Your task to perform on an android device: open app "Pandora - Music & Podcasts" Image 0: 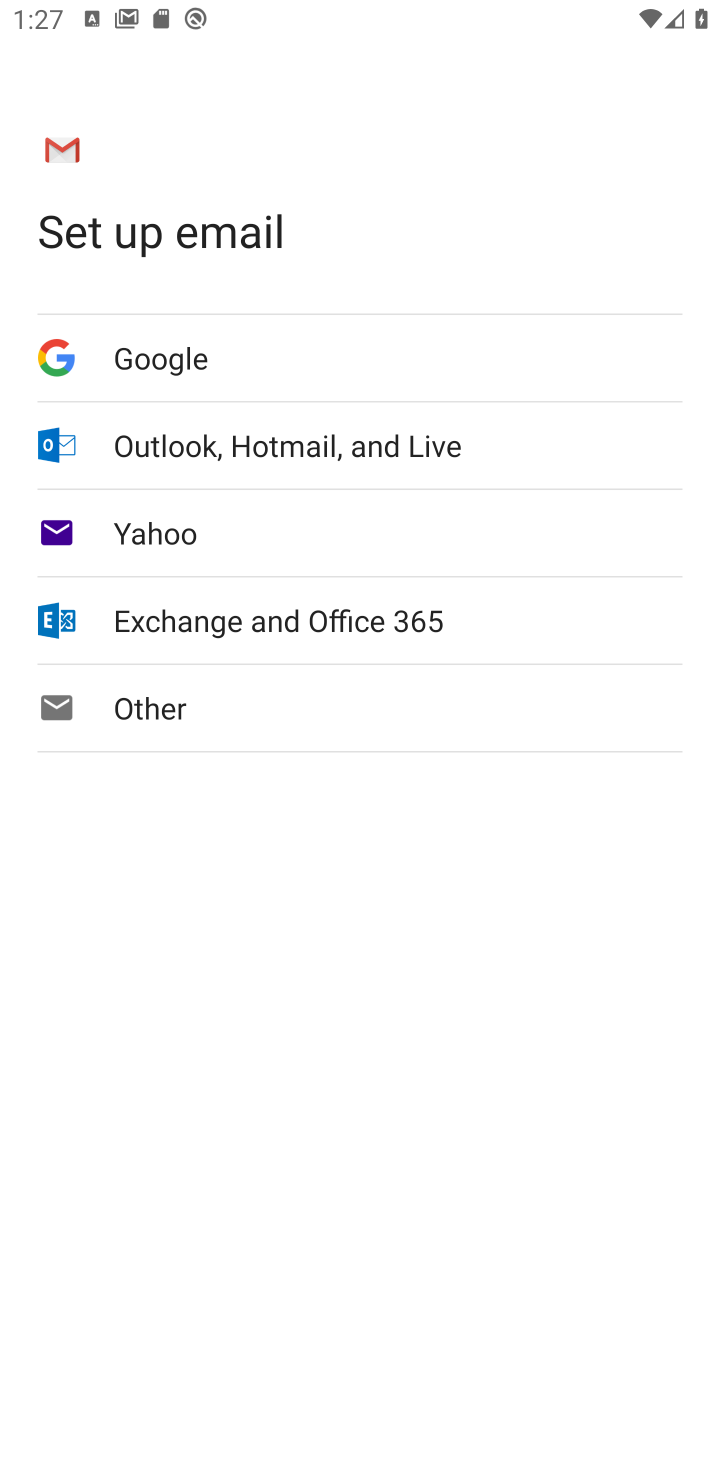
Step 0: press home button
Your task to perform on an android device: open app "Pandora - Music & Podcasts" Image 1: 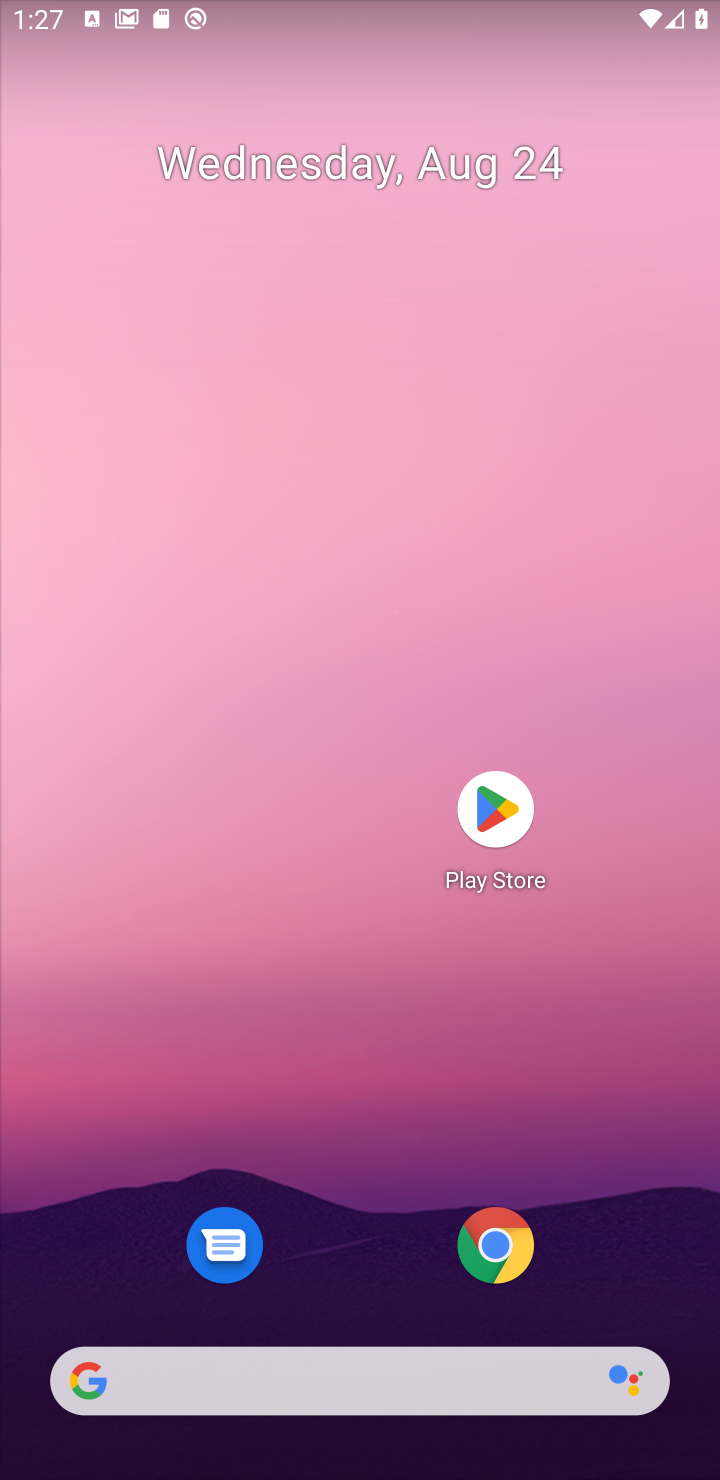
Step 1: click (491, 814)
Your task to perform on an android device: open app "Pandora - Music & Podcasts" Image 2: 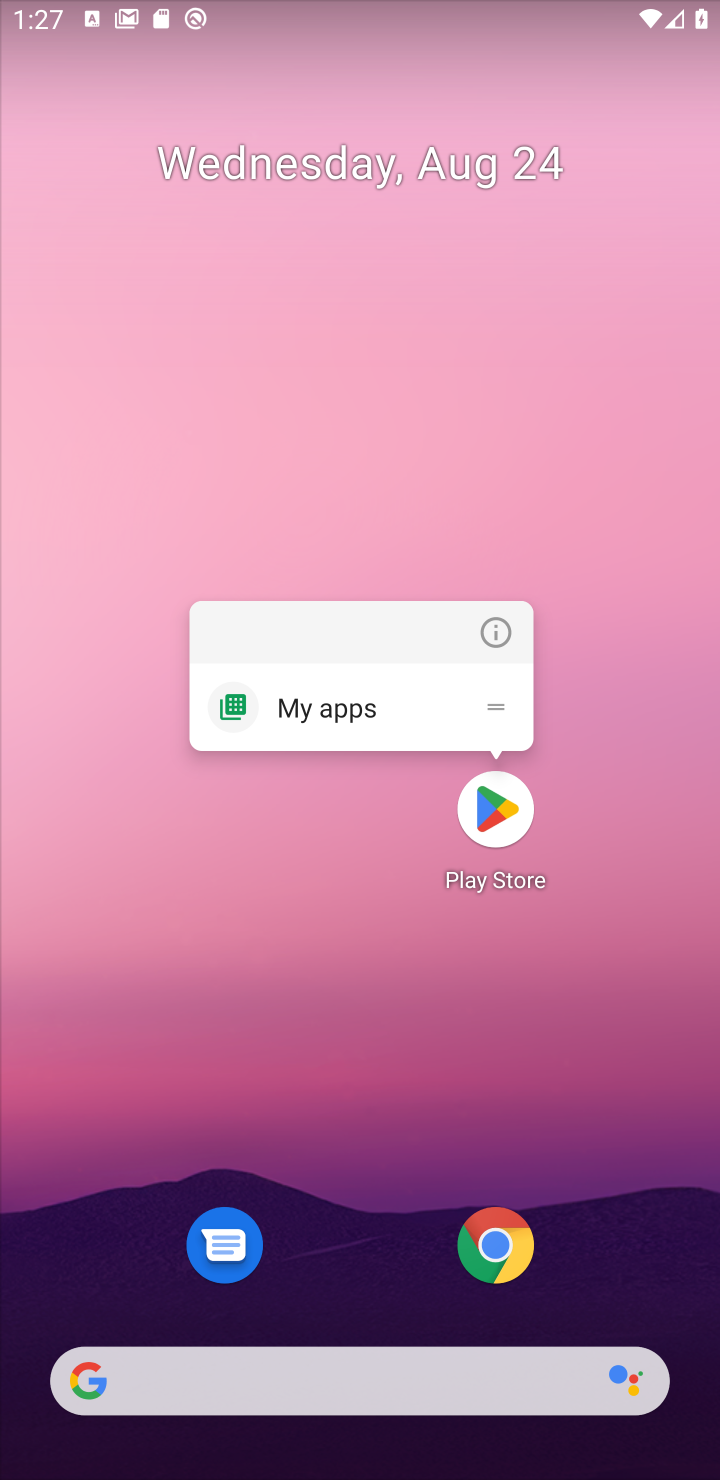
Step 2: click (491, 819)
Your task to perform on an android device: open app "Pandora - Music & Podcasts" Image 3: 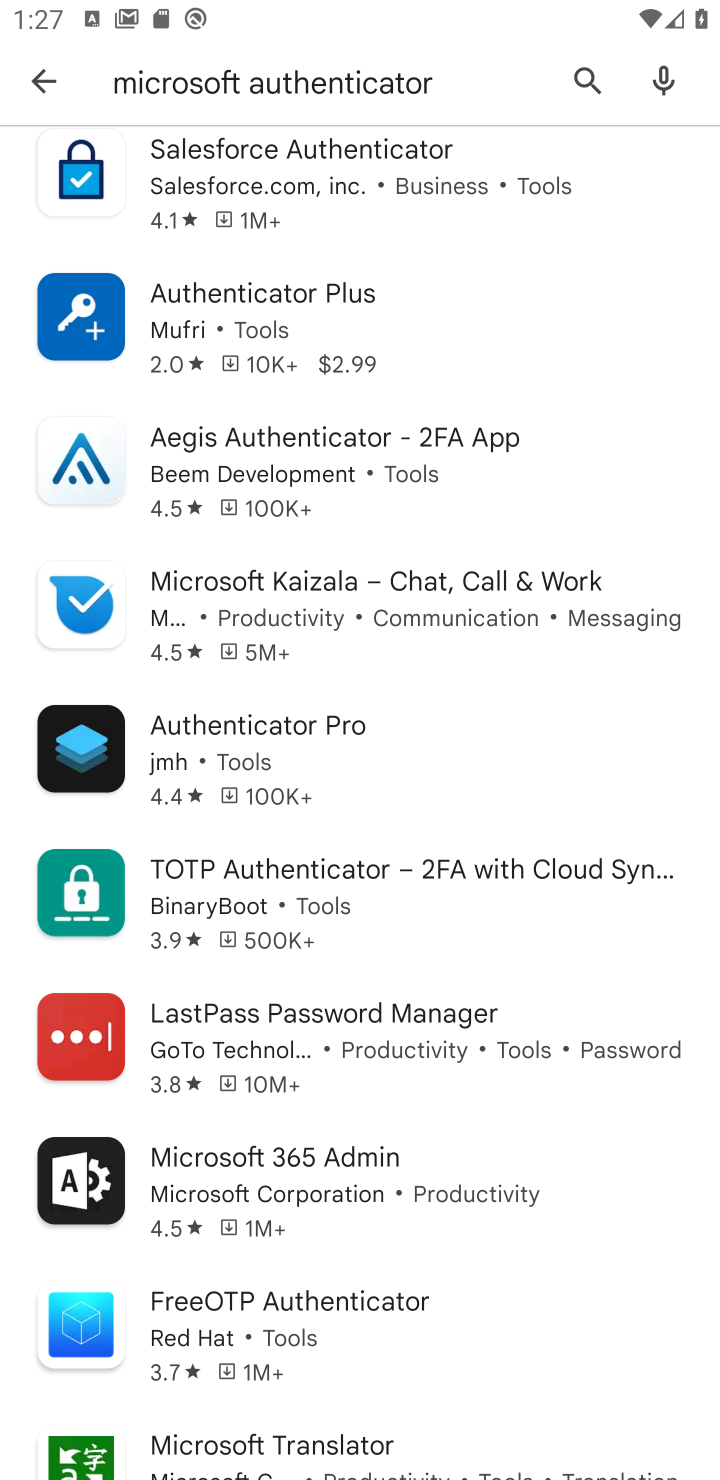
Step 3: click (590, 72)
Your task to perform on an android device: open app "Pandora - Music & Podcasts" Image 4: 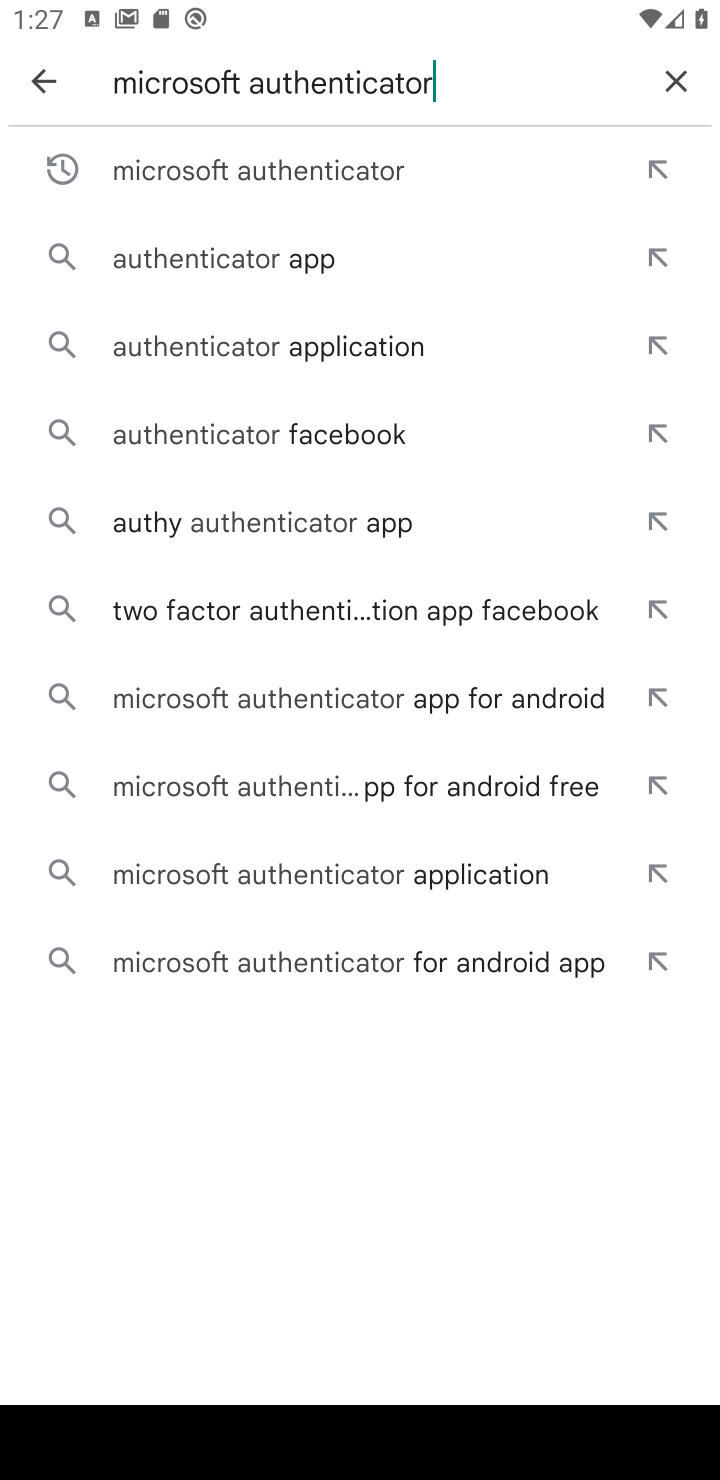
Step 4: click (671, 72)
Your task to perform on an android device: open app "Pandora - Music & Podcasts" Image 5: 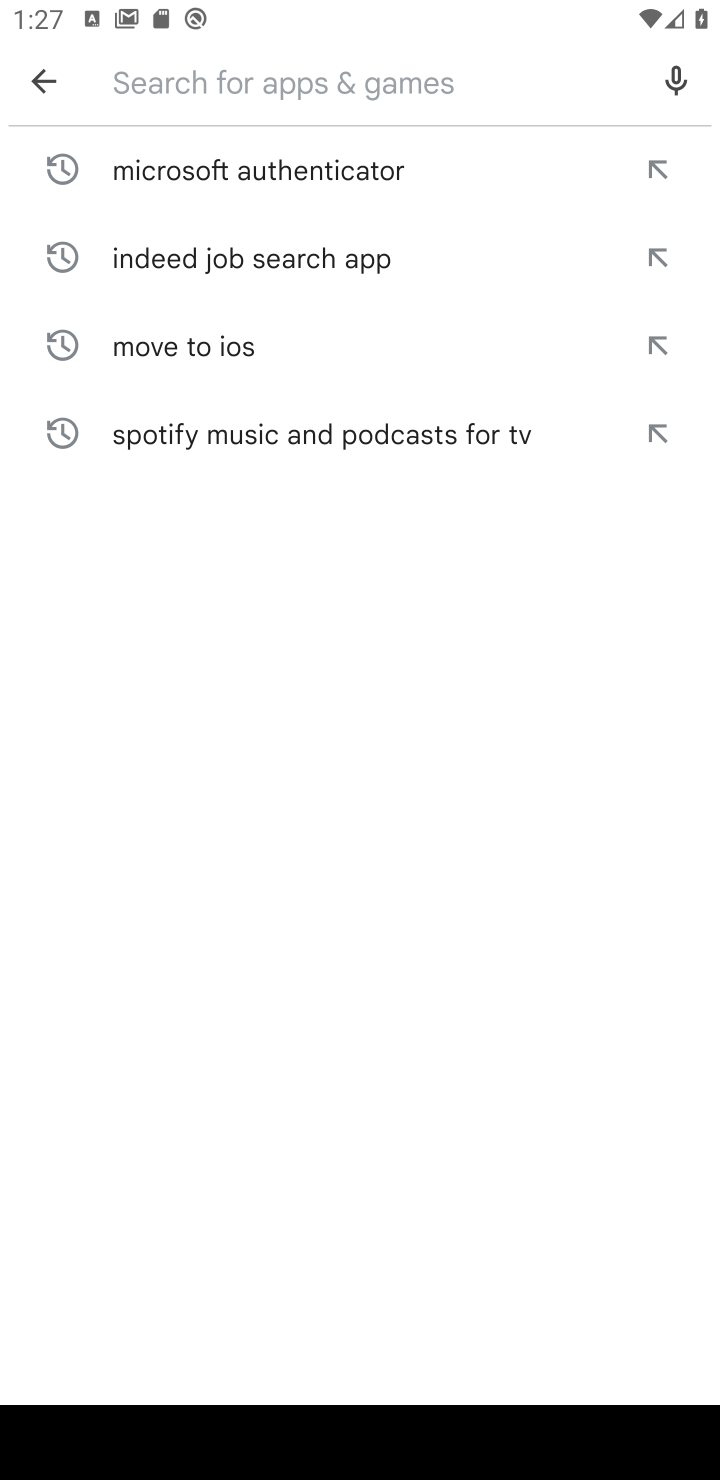
Step 5: type "Pandora - Music & Podcasts"
Your task to perform on an android device: open app "Pandora - Music & Podcasts" Image 6: 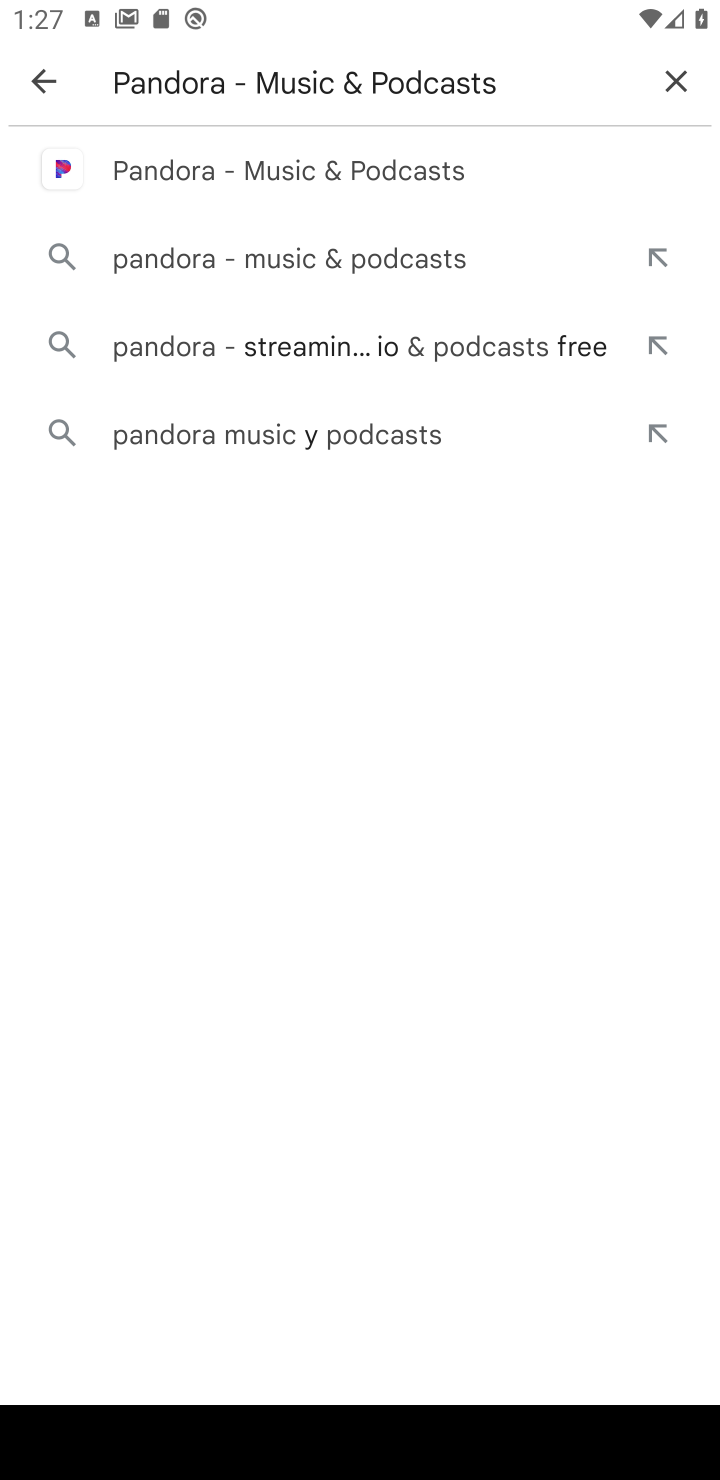
Step 6: click (307, 184)
Your task to perform on an android device: open app "Pandora - Music & Podcasts" Image 7: 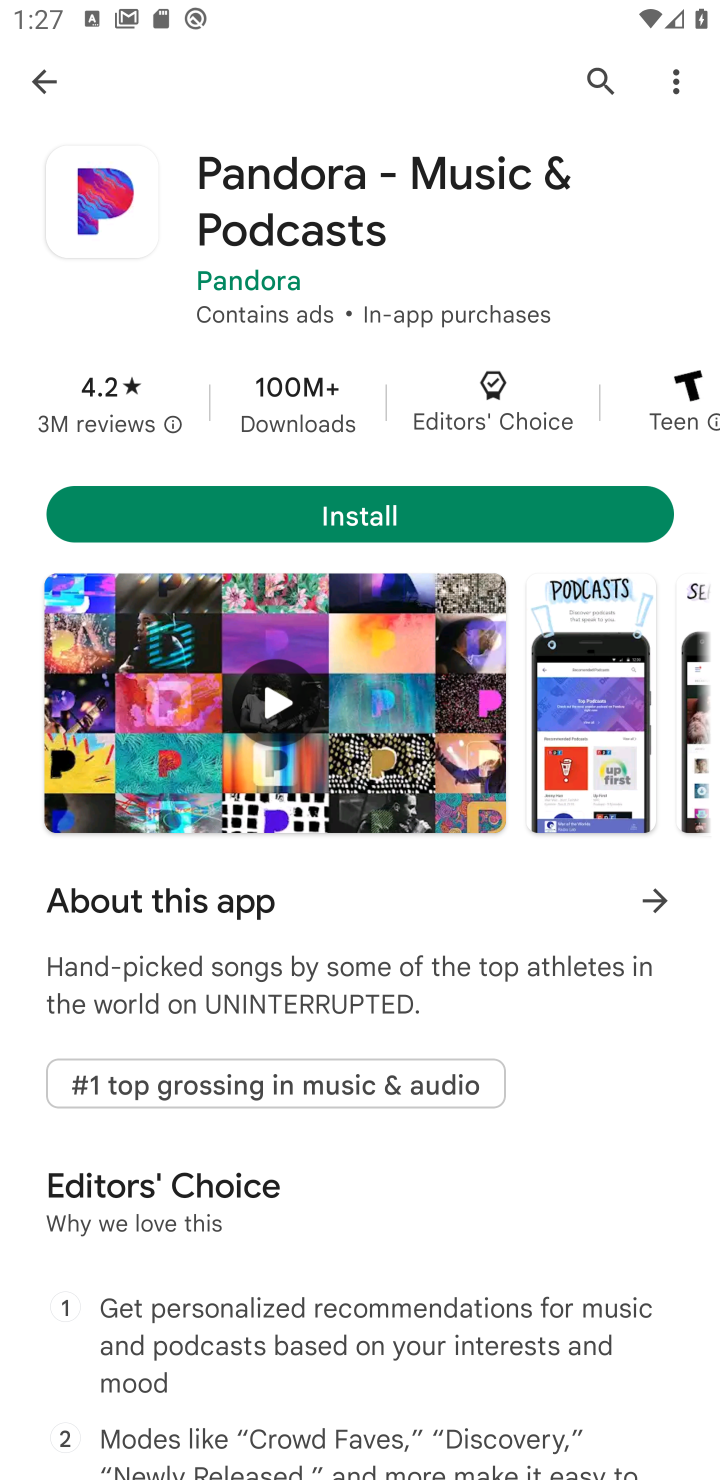
Step 7: task complete